Your task to perform on an android device: Open settings on Google Maps Image 0: 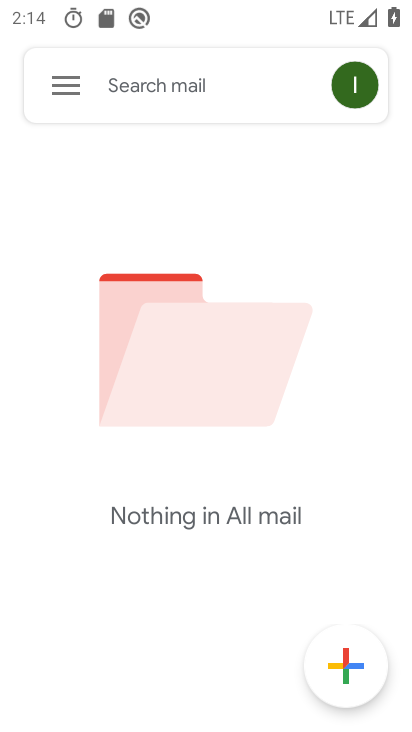
Step 0: press home button
Your task to perform on an android device: Open settings on Google Maps Image 1: 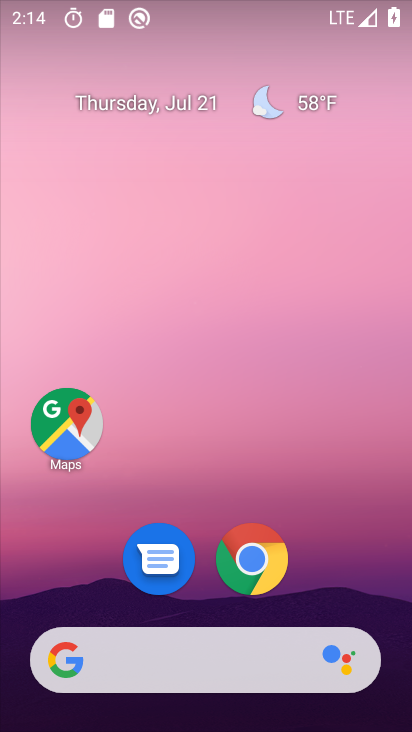
Step 1: drag from (355, 582) to (342, 136)
Your task to perform on an android device: Open settings on Google Maps Image 2: 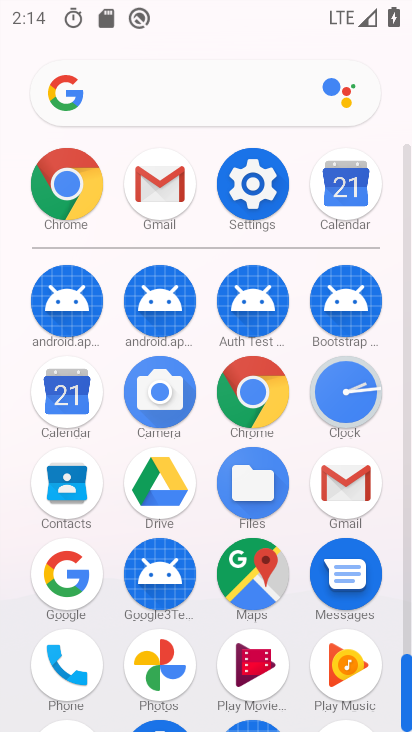
Step 2: click (258, 565)
Your task to perform on an android device: Open settings on Google Maps Image 3: 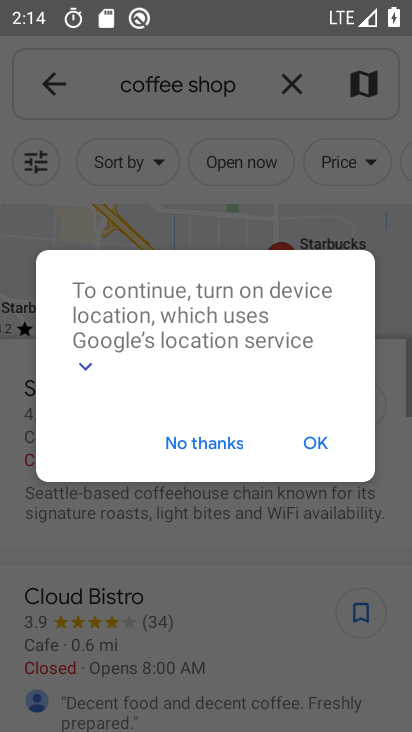
Step 3: press back button
Your task to perform on an android device: Open settings on Google Maps Image 4: 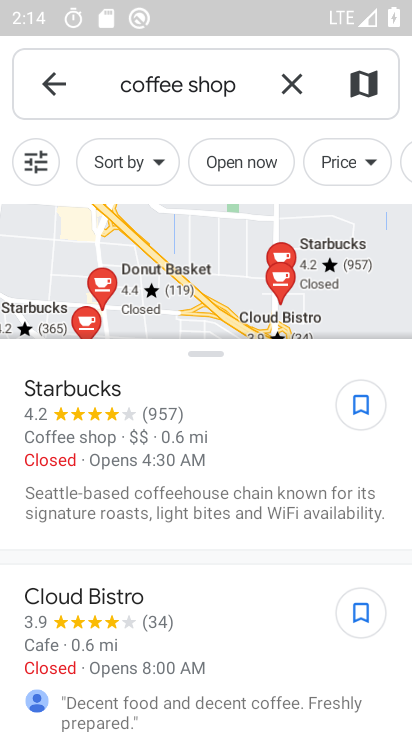
Step 4: press back button
Your task to perform on an android device: Open settings on Google Maps Image 5: 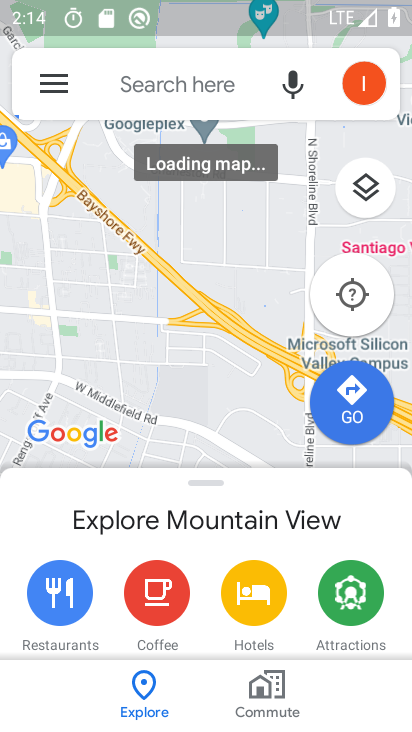
Step 5: click (56, 84)
Your task to perform on an android device: Open settings on Google Maps Image 6: 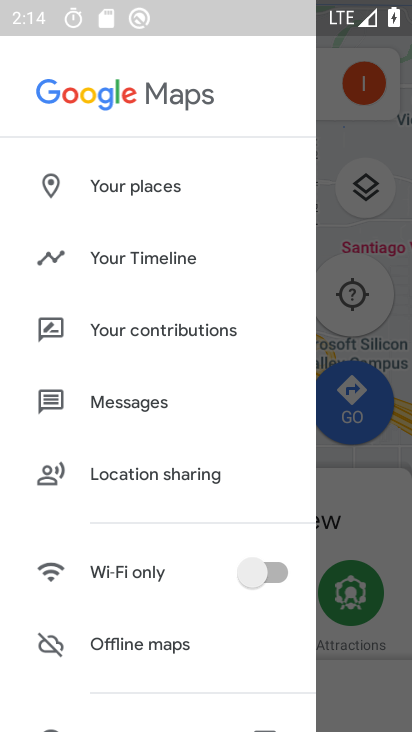
Step 6: drag from (204, 409) to (211, 361)
Your task to perform on an android device: Open settings on Google Maps Image 7: 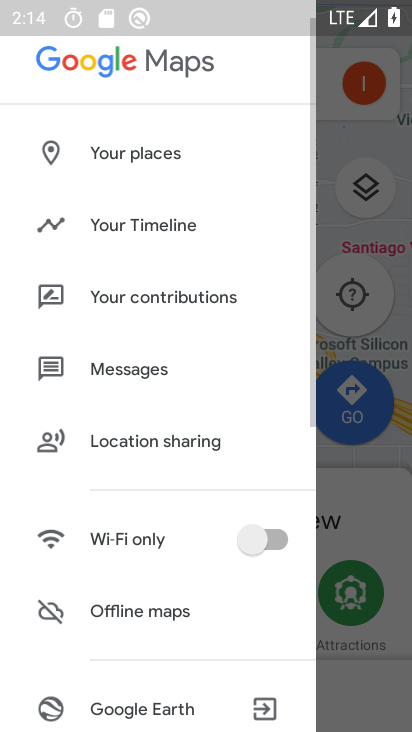
Step 7: drag from (214, 478) to (218, 404)
Your task to perform on an android device: Open settings on Google Maps Image 8: 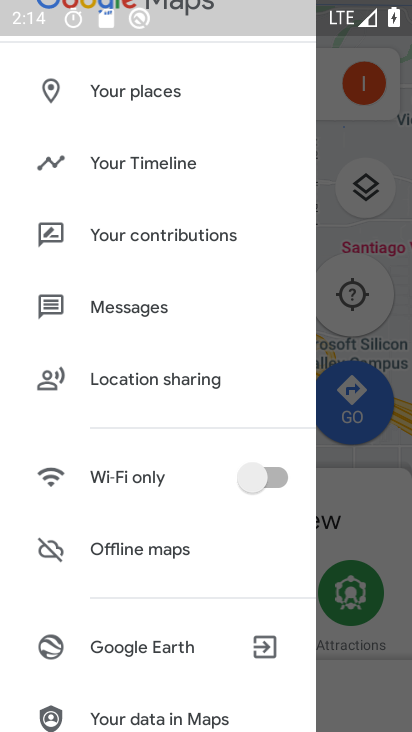
Step 8: drag from (207, 484) to (208, 393)
Your task to perform on an android device: Open settings on Google Maps Image 9: 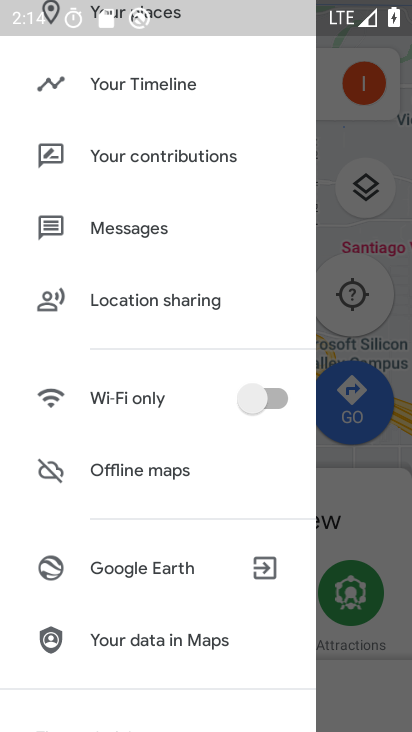
Step 9: drag from (208, 497) to (211, 395)
Your task to perform on an android device: Open settings on Google Maps Image 10: 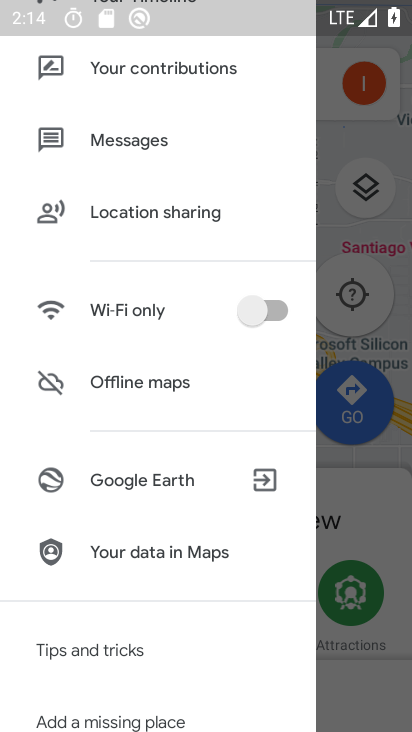
Step 10: drag from (200, 491) to (197, 427)
Your task to perform on an android device: Open settings on Google Maps Image 11: 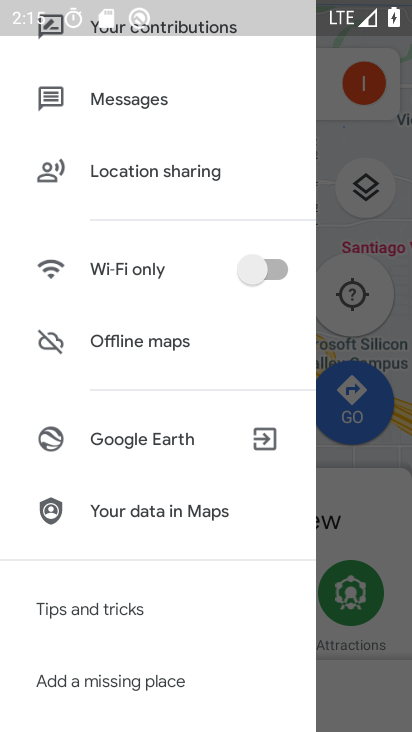
Step 11: drag from (206, 544) to (207, 445)
Your task to perform on an android device: Open settings on Google Maps Image 12: 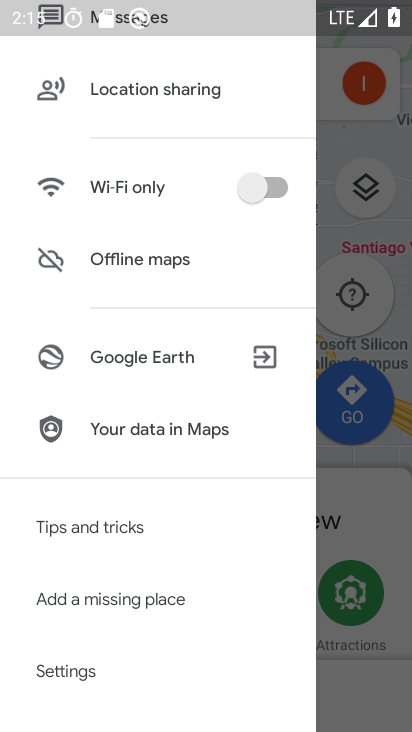
Step 12: drag from (199, 506) to (196, 393)
Your task to perform on an android device: Open settings on Google Maps Image 13: 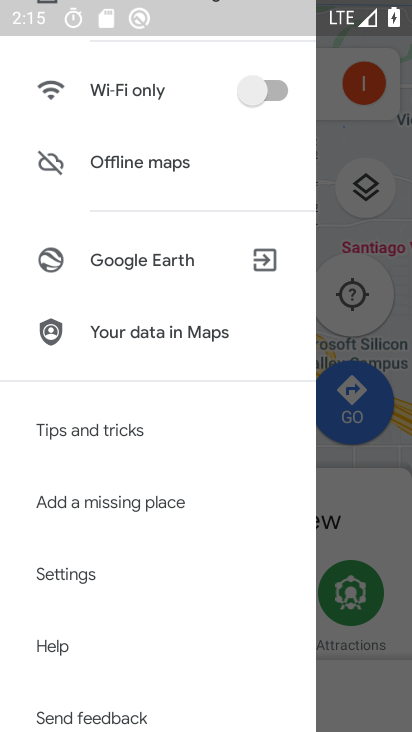
Step 13: click (112, 571)
Your task to perform on an android device: Open settings on Google Maps Image 14: 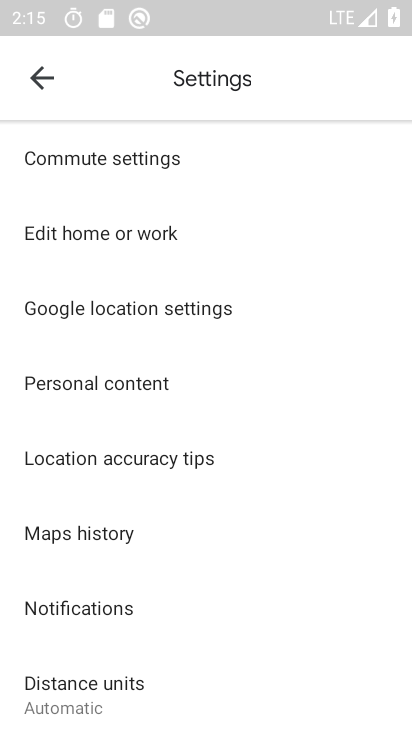
Step 14: task complete